Your task to perform on an android device: manage bookmarks in the chrome app Image 0: 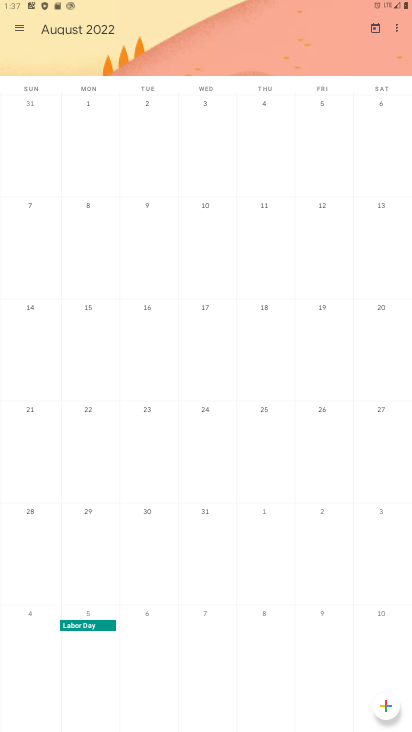
Step 0: press home button
Your task to perform on an android device: manage bookmarks in the chrome app Image 1: 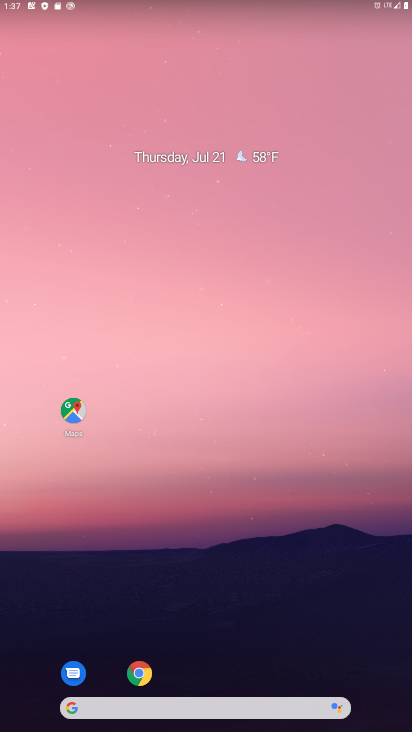
Step 1: click (139, 674)
Your task to perform on an android device: manage bookmarks in the chrome app Image 2: 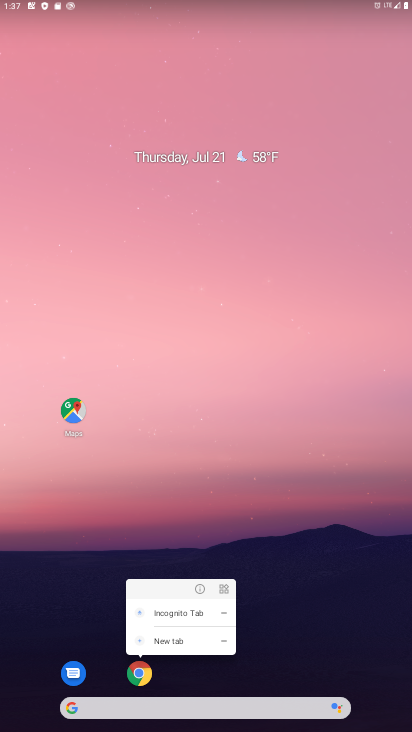
Step 2: click (139, 676)
Your task to perform on an android device: manage bookmarks in the chrome app Image 3: 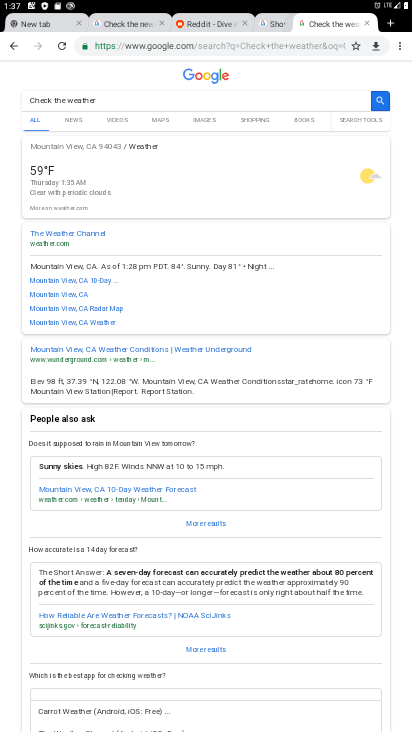
Step 3: click (403, 40)
Your task to perform on an android device: manage bookmarks in the chrome app Image 4: 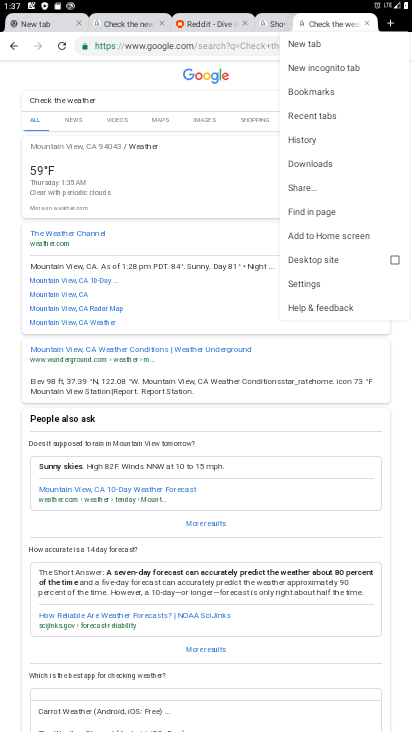
Step 4: click (324, 95)
Your task to perform on an android device: manage bookmarks in the chrome app Image 5: 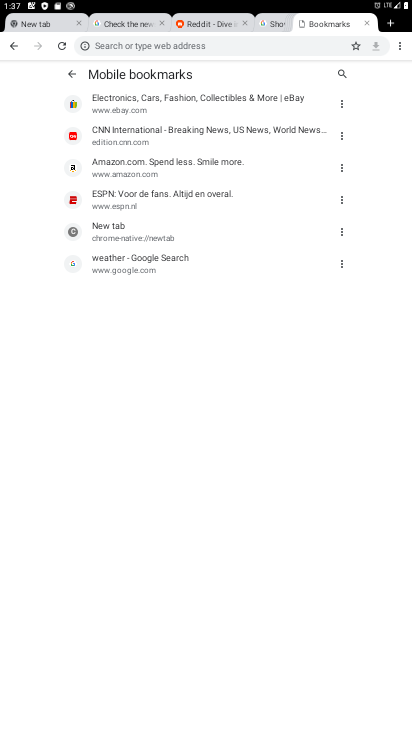
Step 5: click (131, 113)
Your task to perform on an android device: manage bookmarks in the chrome app Image 6: 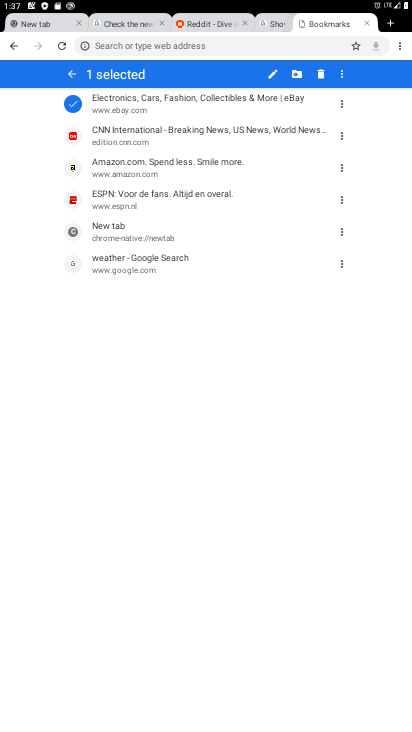
Step 6: click (125, 132)
Your task to perform on an android device: manage bookmarks in the chrome app Image 7: 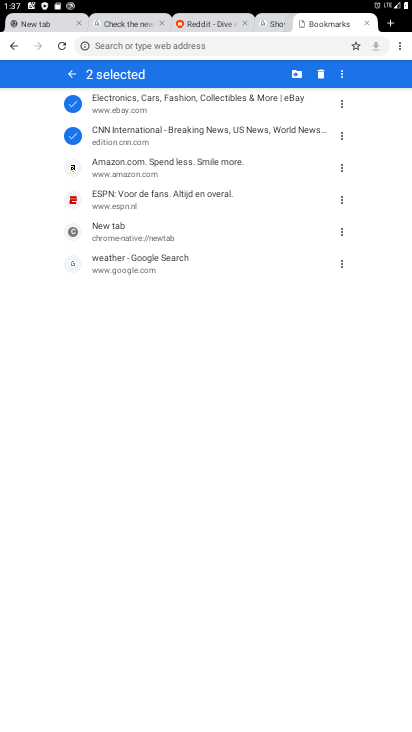
Step 7: click (294, 72)
Your task to perform on an android device: manage bookmarks in the chrome app Image 8: 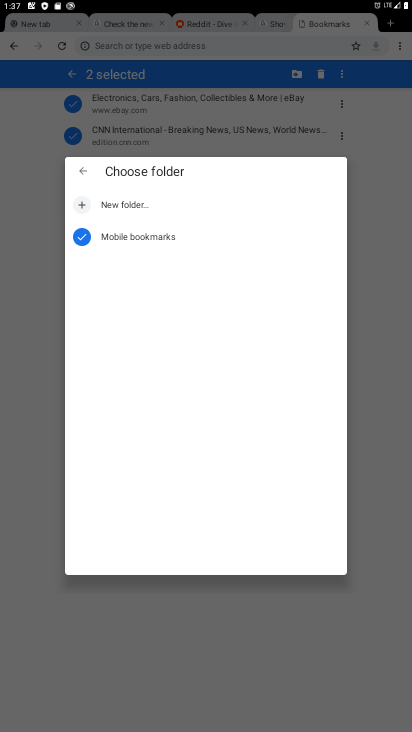
Step 8: click (130, 207)
Your task to perform on an android device: manage bookmarks in the chrome app Image 9: 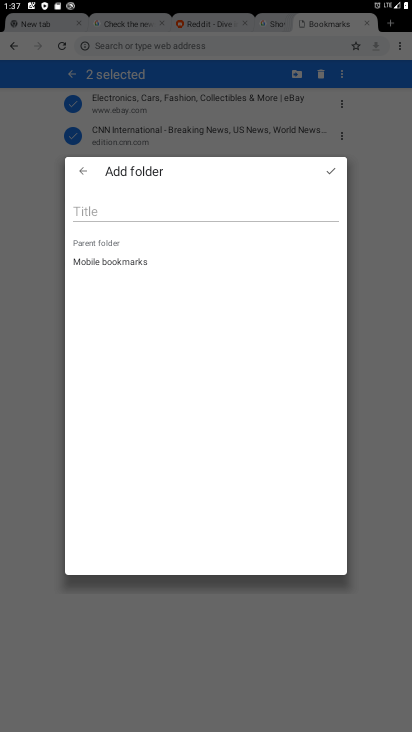
Step 9: click (132, 213)
Your task to perform on an android device: manage bookmarks in the chrome app Image 10: 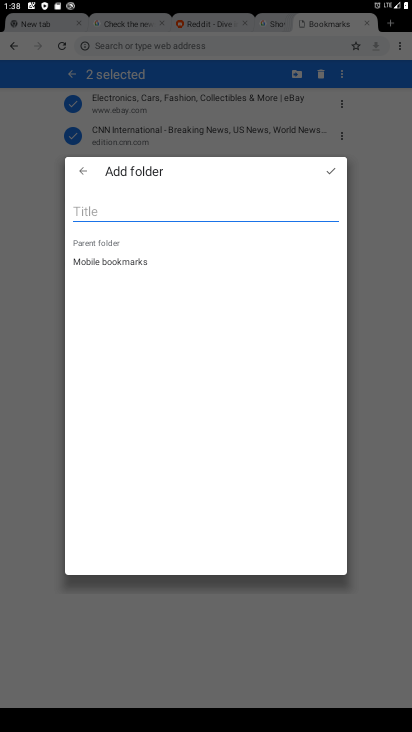
Step 10: type "swswsws "
Your task to perform on an android device: manage bookmarks in the chrome app Image 11: 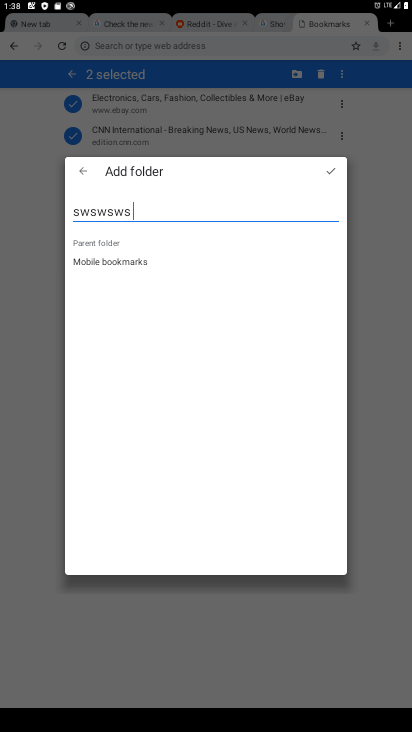
Step 11: click (326, 175)
Your task to perform on an android device: manage bookmarks in the chrome app Image 12: 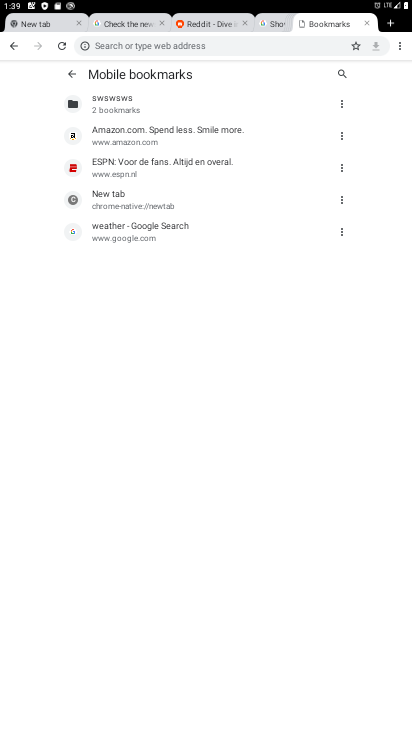
Step 12: task complete